Your task to perform on an android device: turn off location Image 0: 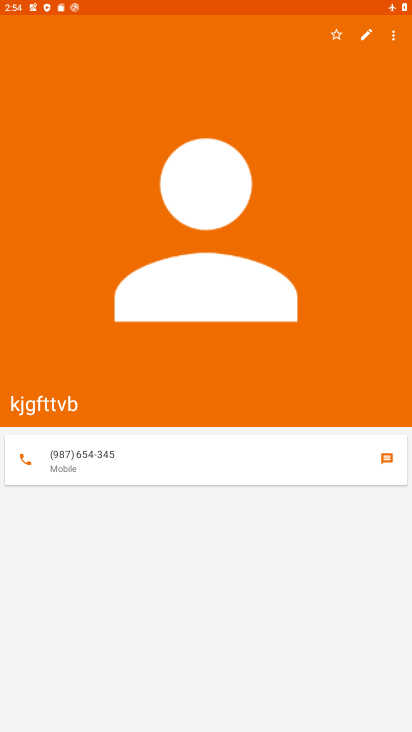
Step 0: press home button
Your task to perform on an android device: turn off location Image 1: 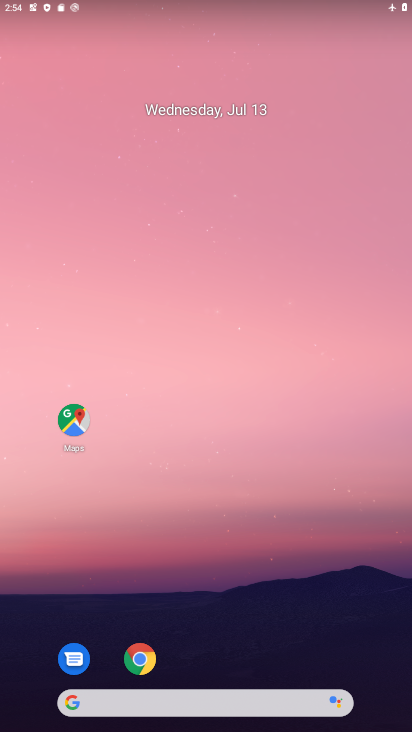
Step 1: drag from (381, 677) to (311, 120)
Your task to perform on an android device: turn off location Image 2: 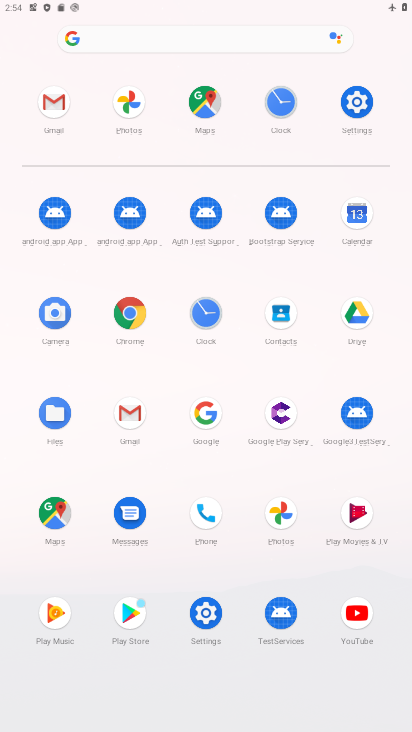
Step 2: click (205, 612)
Your task to perform on an android device: turn off location Image 3: 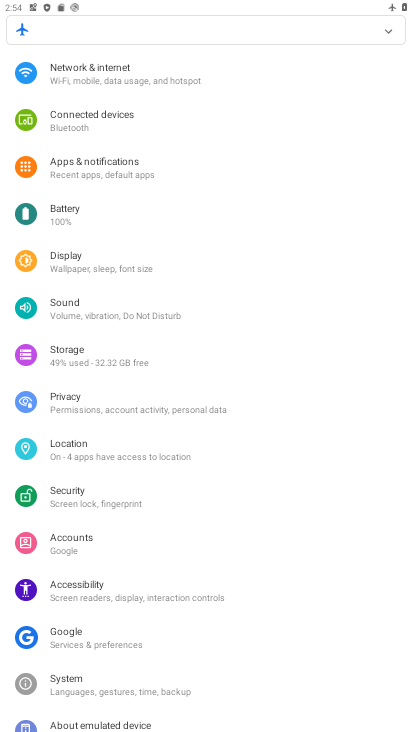
Step 3: click (77, 448)
Your task to perform on an android device: turn off location Image 4: 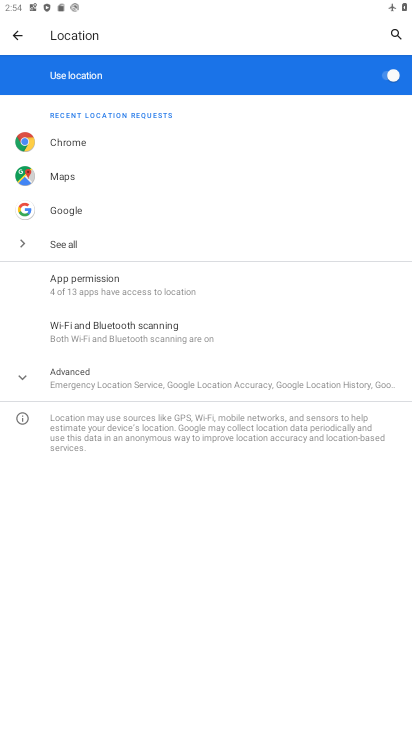
Step 4: click (381, 73)
Your task to perform on an android device: turn off location Image 5: 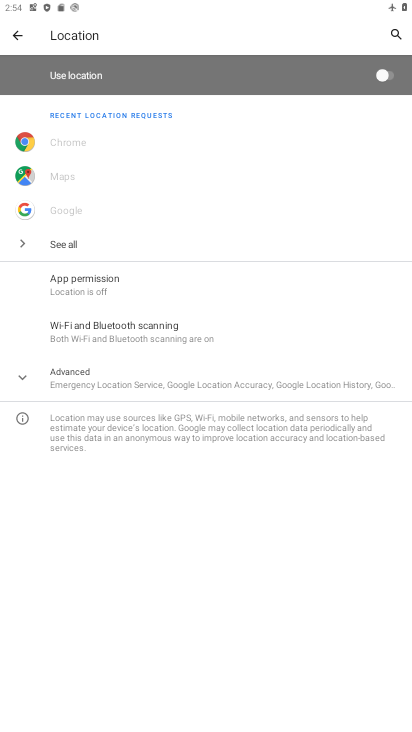
Step 5: task complete